Your task to perform on an android device: turn off location history Image 0: 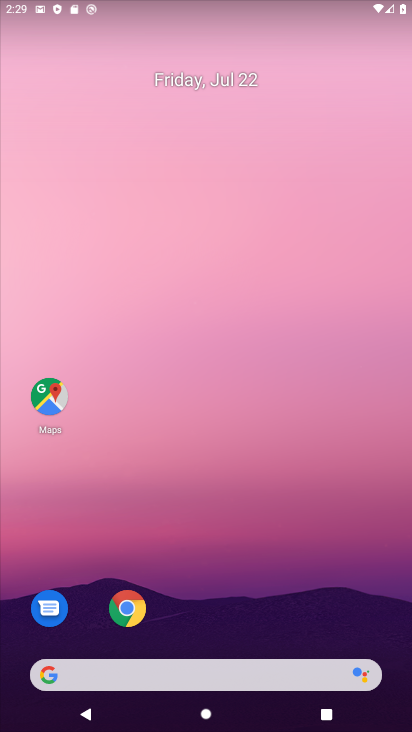
Step 0: drag from (346, 632) to (267, 158)
Your task to perform on an android device: turn off location history Image 1: 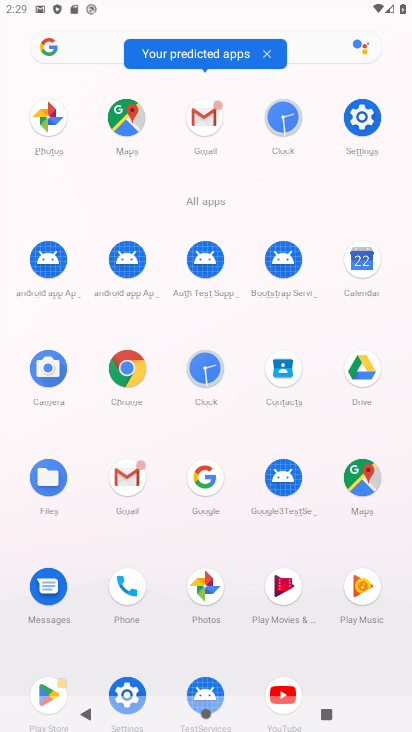
Step 1: click (127, 120)
Your task to perform on an android device: turn off location history Image 2: 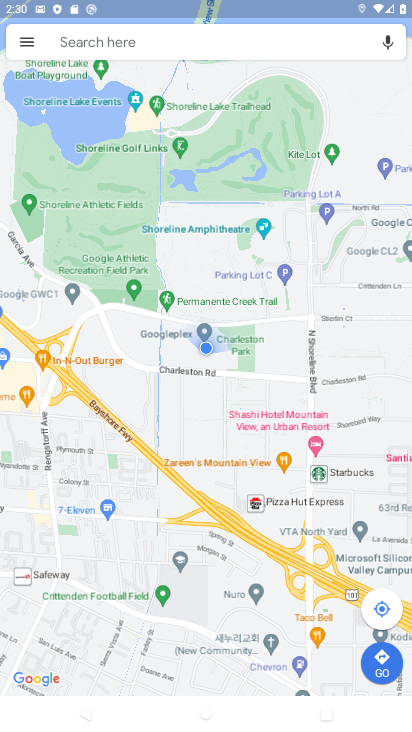
Step 2: click (30, 51)
Your task to perform on an android device: turn off location history Image 3: 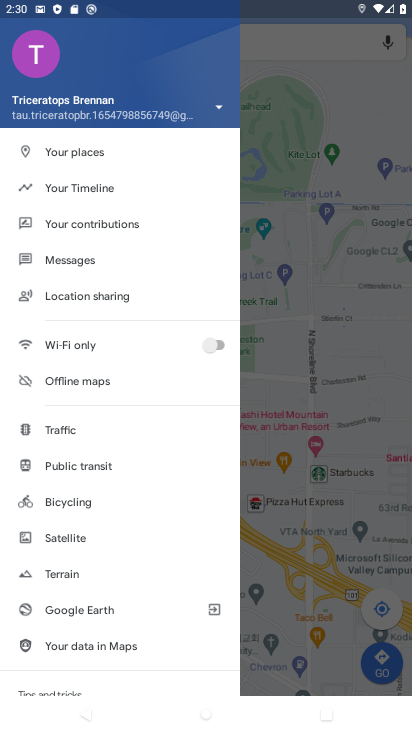
Step 3: click (78, 185)
Your task to perform on an android device: turn off location history Image 4: 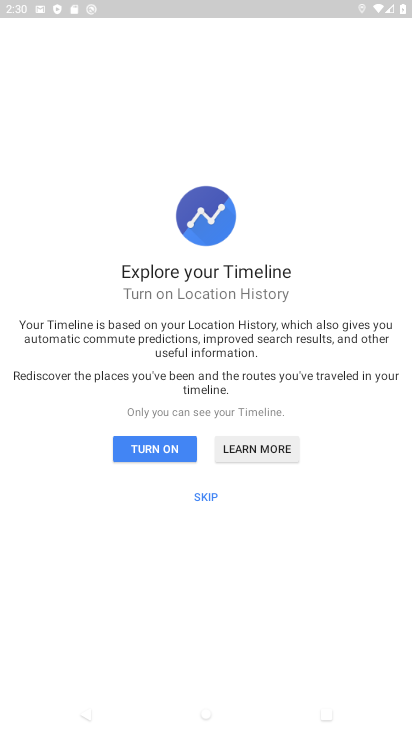
Step 4: click (217, 491)
Your task to perform on an android device: turn off location history Image 5: 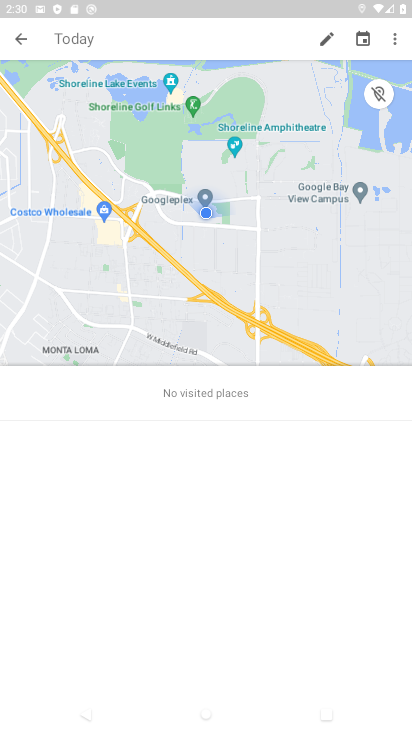
Step 5: click (401, 33)
Your task to perform on an android device: turn off location history Image 6: 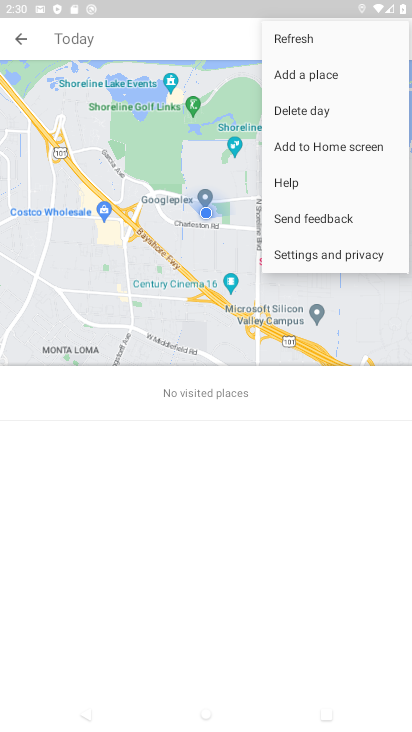
Step 6: click (337, 259)
Your task to perform on an android device: turn off location history Image 7: 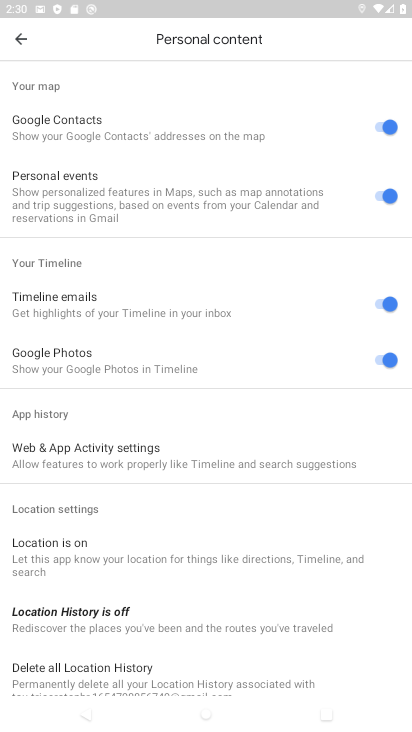
Step 7: task complete